Your task to perform on an android device: delete location history Image 0: 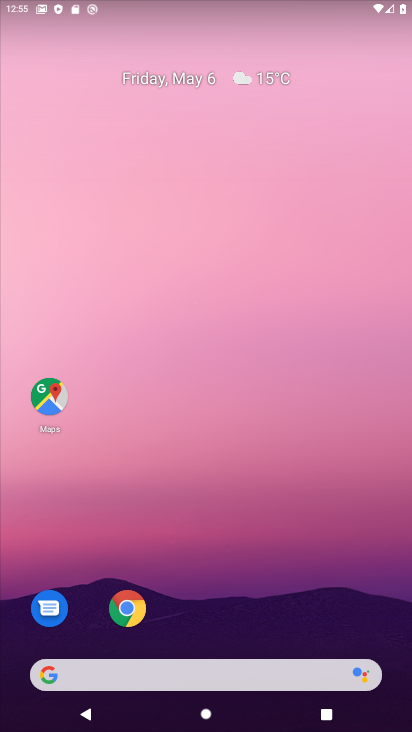
Step 0: drag from (281, 549) to (293, 0)
Your task to perform on an android device: delete location history Image 1: 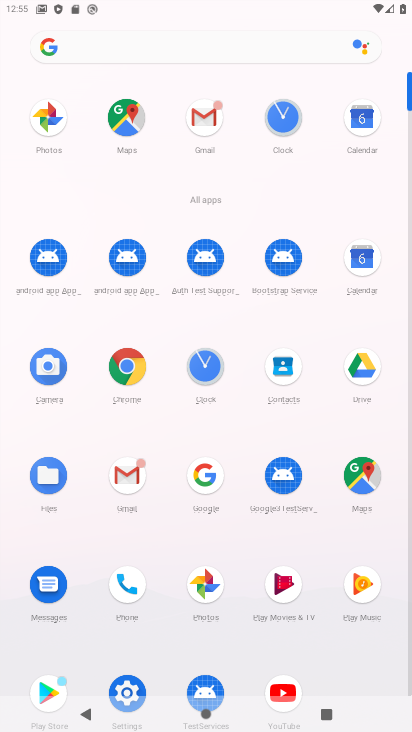
Step 1: click (355, 476)
Your task to perform on an android device: delete location history Image 2: 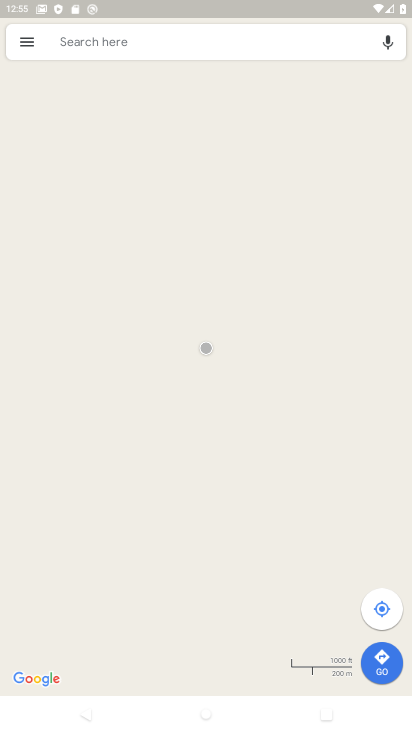
Step 2: click (24, 46)
Your task to perform on an android device: delete location history Image 3: 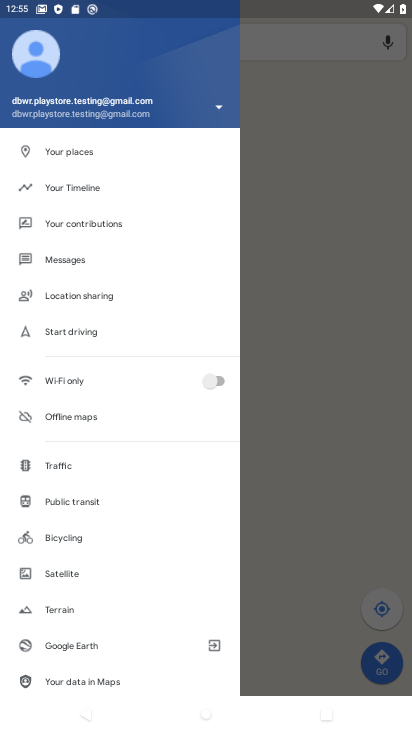
Step 3: click (94, 198)
Your task to perform on an android device: delete location history Image 4: 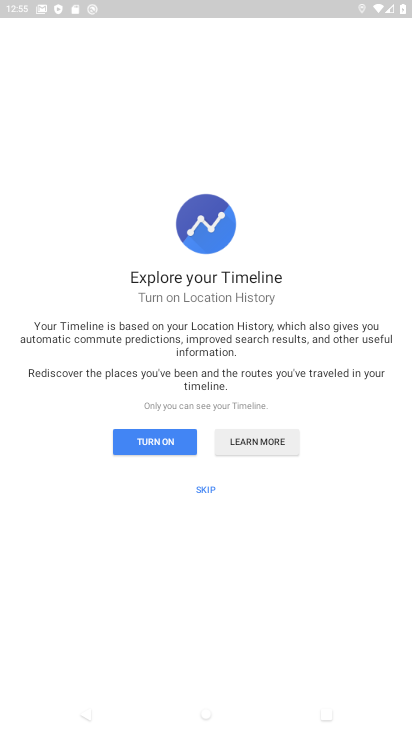
Step 4: click (199, 493)
Your task to perform on an android device: delete location history Image 5: 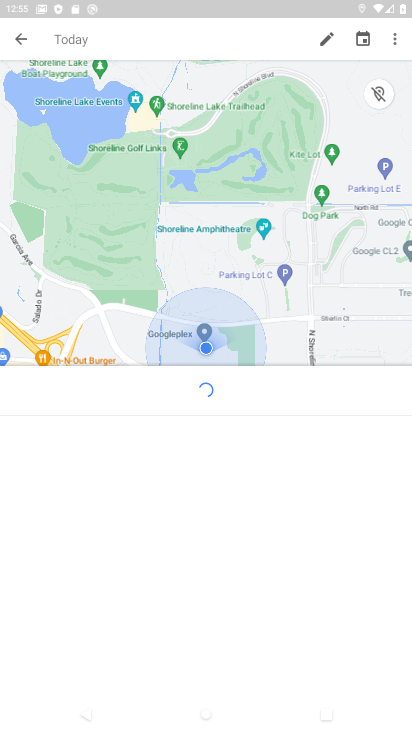
Step 5: click (390, 38)
Your task to perform on an android device: delete location history Image 6: 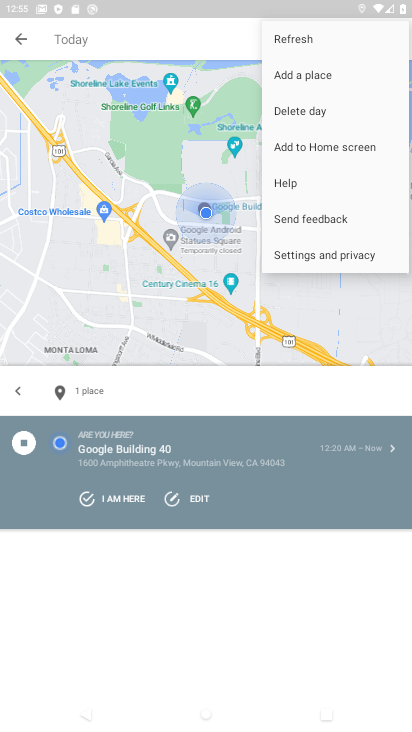
Step 6: click (311, 242)
Your task to perform on an android device: delete location history Image 7: 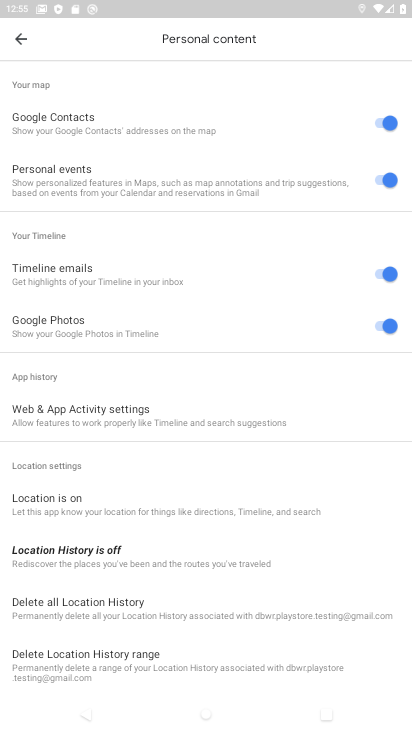
Step 7: click (111, 622)
Your task to perform on an android device: delete location history Image 8: 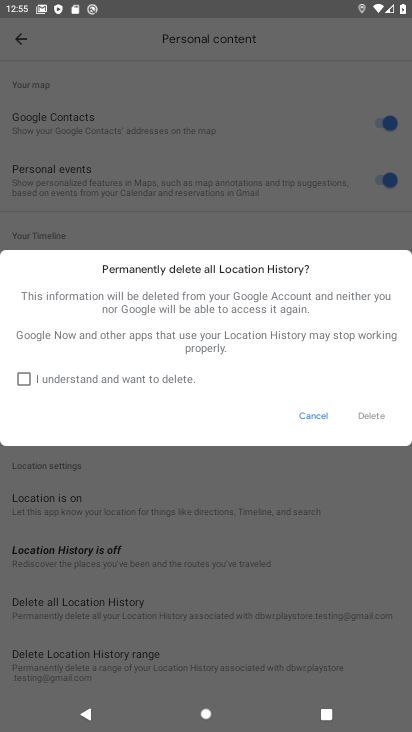
Step 8: click (89, 382)
Your task to perform on an android device: delete location history Image 9: 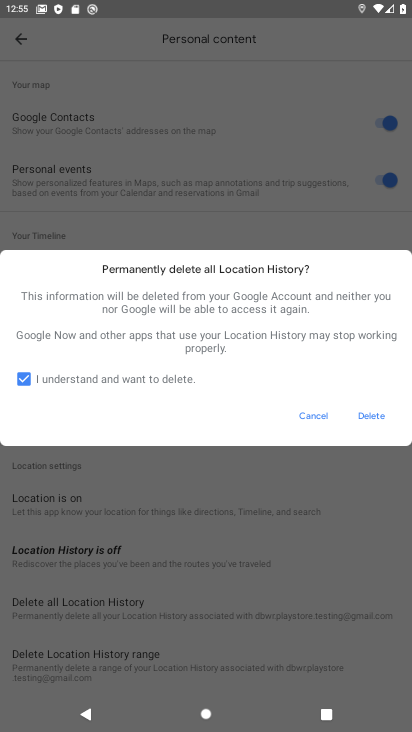
Step 9: click (370, 420)
Your task to perform on an android device: delete location history Image 10: 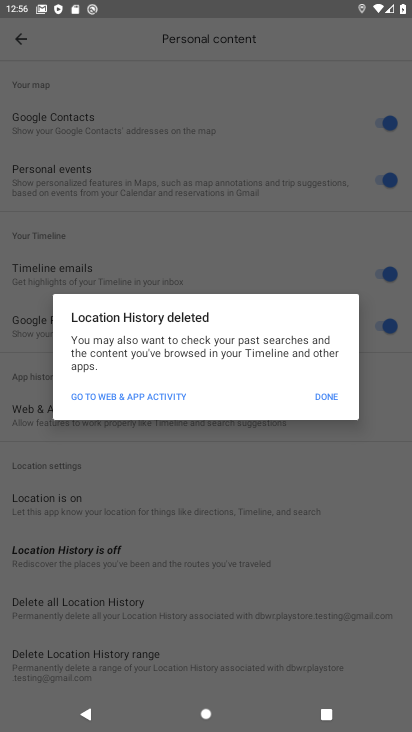
Step 10: click (315, 399)
Your task to perform on an android device: delete location history Image 11: 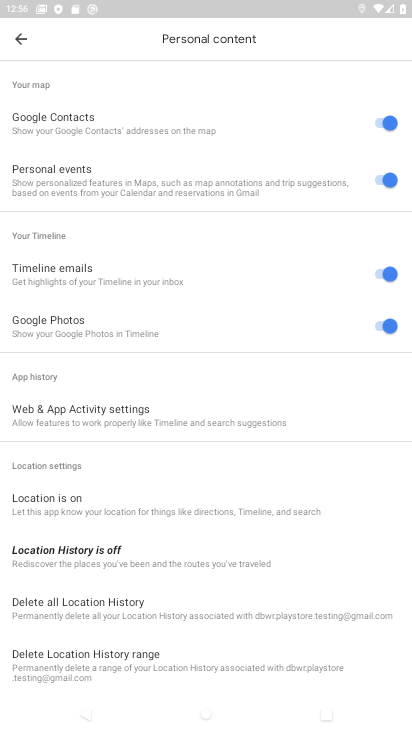
Step 11: task complete